Your task to perform on an android device: Search for Mexican restaurants on Maps Image 0: 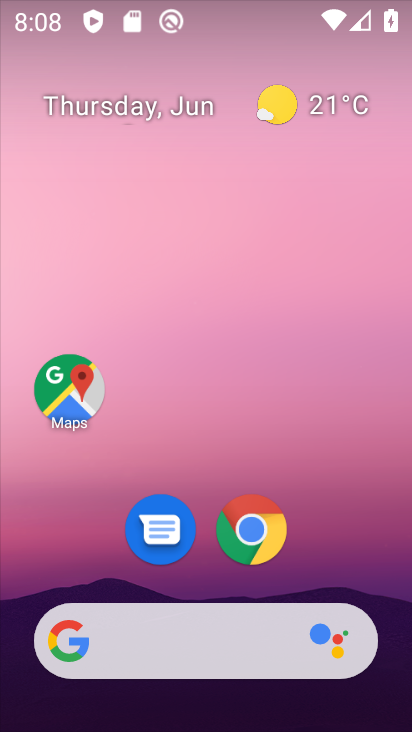
Step 0: click (62, 387)
Your task to perform on an android device: Search for Mexican restaurants on Maps Image 1: 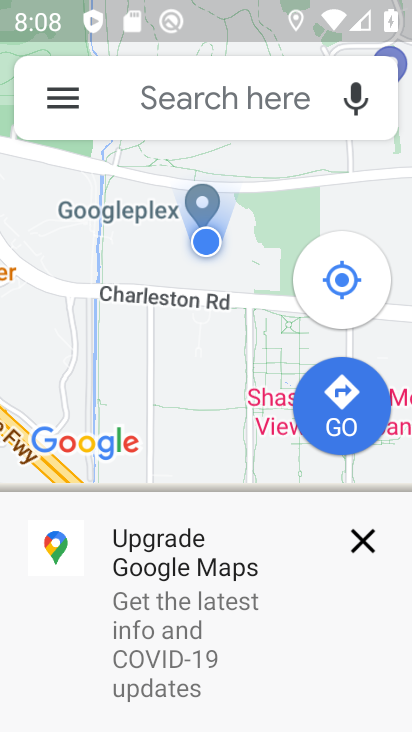
Step 1: click (173, 108)
Your task to perform on an android device: Search for Mexican restaurants on Maps Image 2: 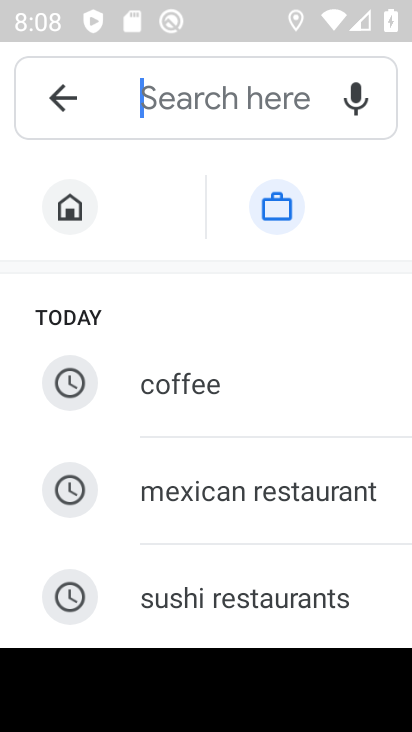
Step 2: click (232, 499)
Your task to perform on an android device: Search for Mexican restaurants on Maps Image 3: 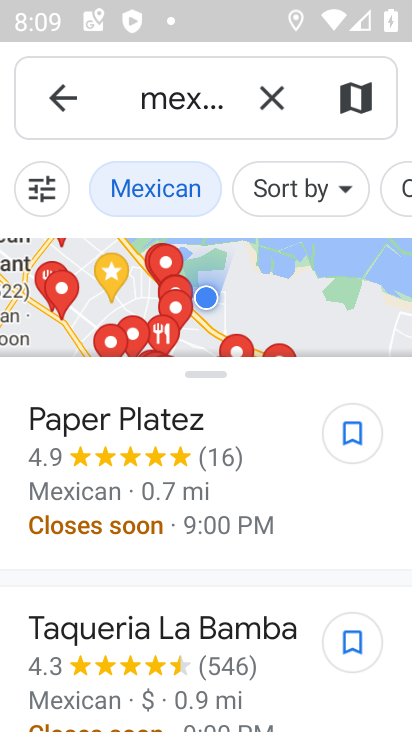
Step 3: task complete